Your task to perform on an android device: toggle data saver in the chrome app Image 0: 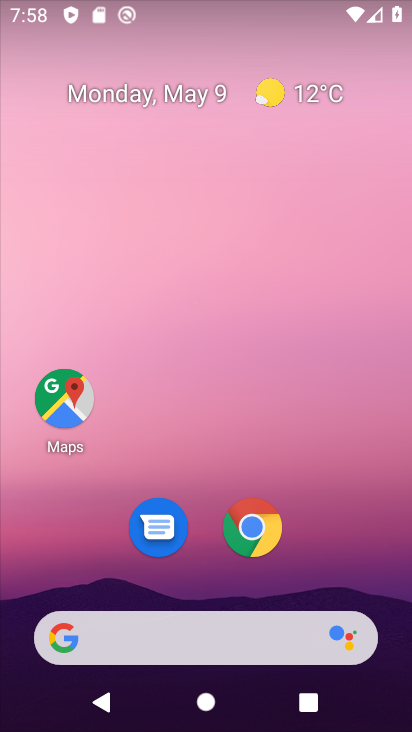
Step 0: click (260, 530)
Your task to perform on an android device: toggle data saver in the chrome app Image 1: 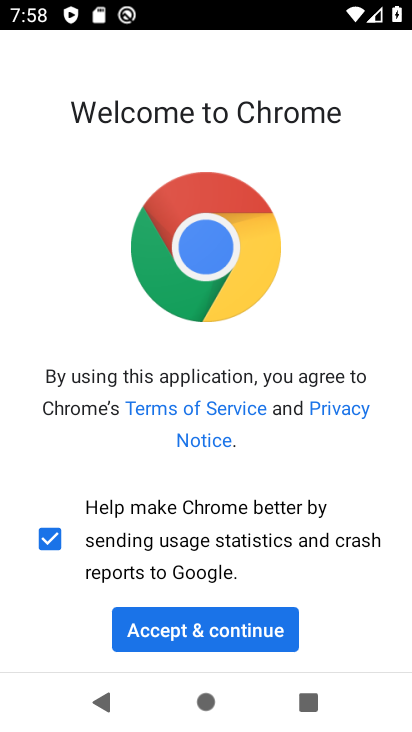
Step 1: click (261, 644)
Your task to perform on an android device: toggle data saver in the chrome app Image 2: 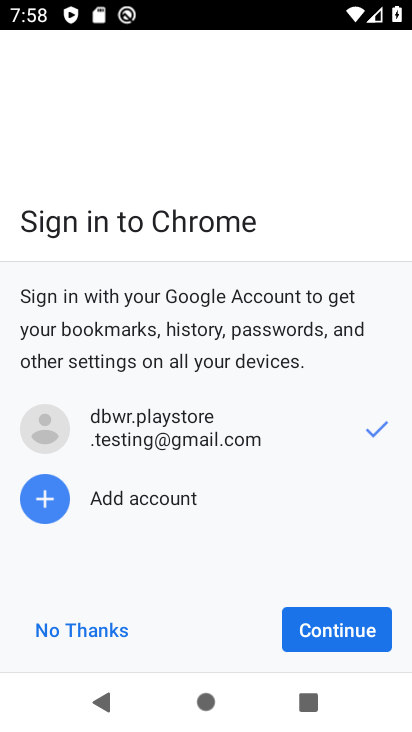
Step 2: click (362, 633)
Your task to perform on an android device: toggle data saver in the chrome app Image 3: 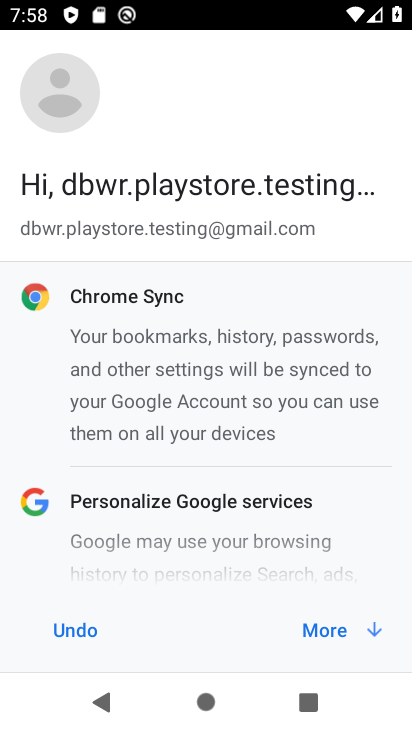
Step 3: click (336, 621)
Your task to perform on an android device: toggle data saver in the chrome app Image 4: 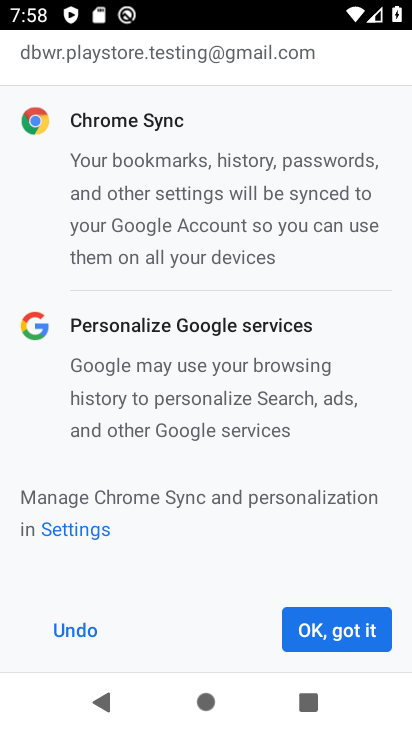
Step 4: click (336, 621)
Your task to perform on an android device: toggle data saver in the chrome app Image 5: 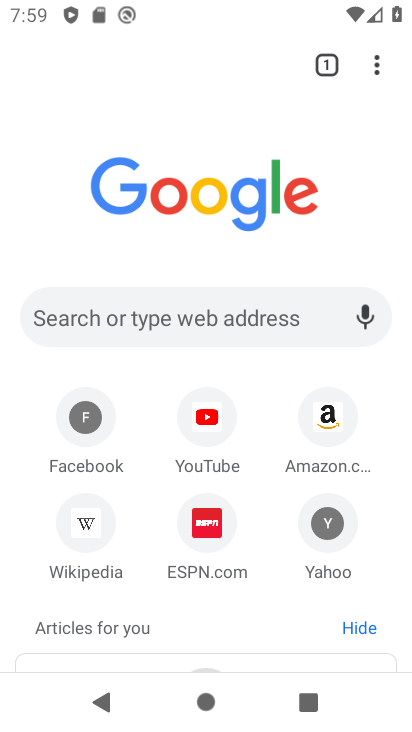
Step 5: click (371, 59)
Your task to perform on an android device: toggle data saver in the chrome app Image 6: 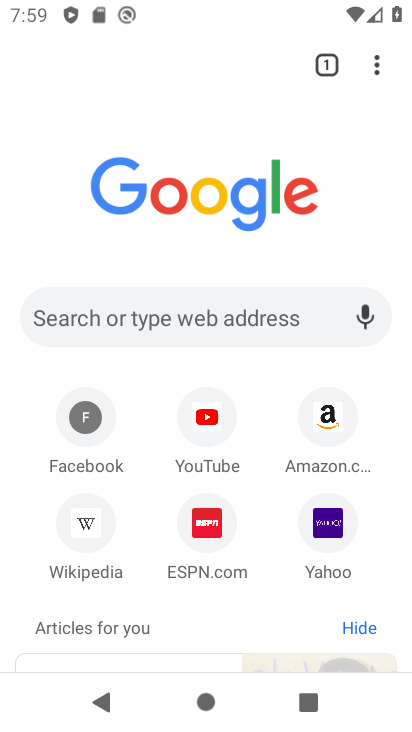
Step 6: click (372, 79)
Your task to perform on an android device: toggle data saver in the chrome app Image 7: 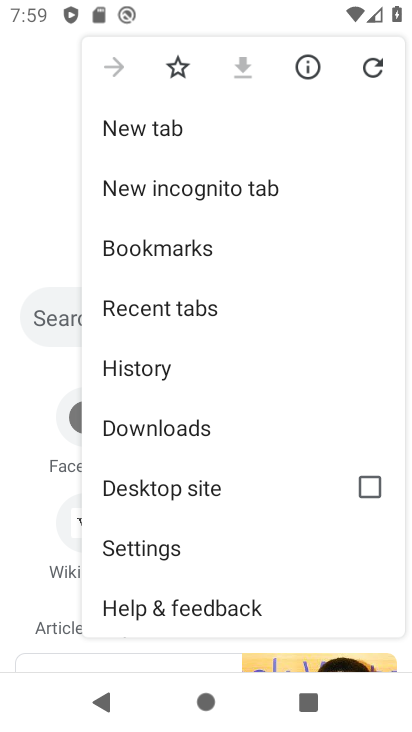
Step 7: drag from (226, 583) to (277, 151)
Your task to perform on an android device: toggle data saver in the chrome app Image 8: 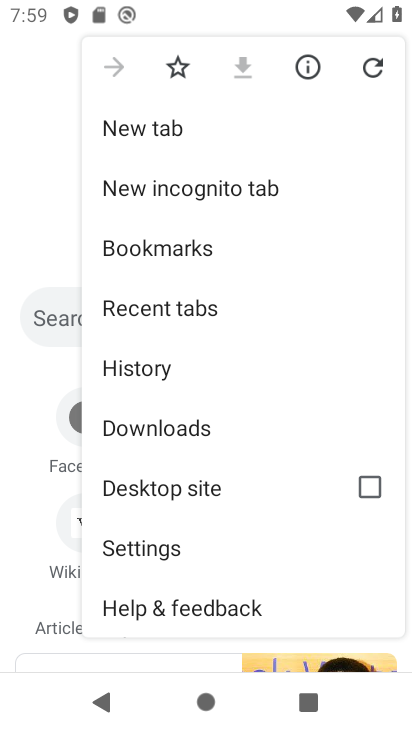
Step 8: click (192, 546)
Your task to perform on an android device: toggle data saver in the chrome app Image 9: 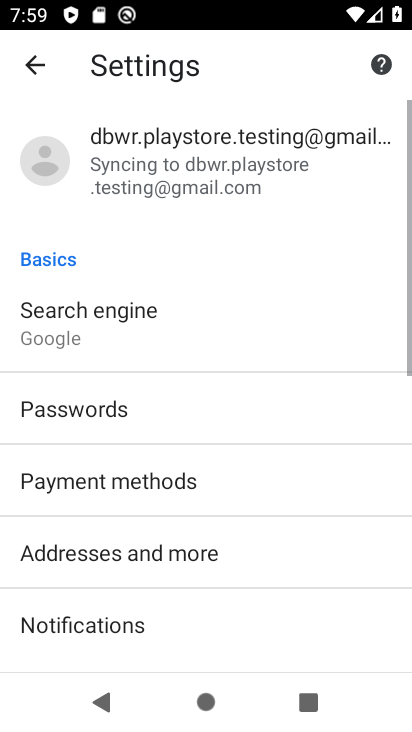
Step 9: drag from (270, 581) to (274, 219)
Your task to perform on an android device: toggle data saver in the chrome app Image 10: 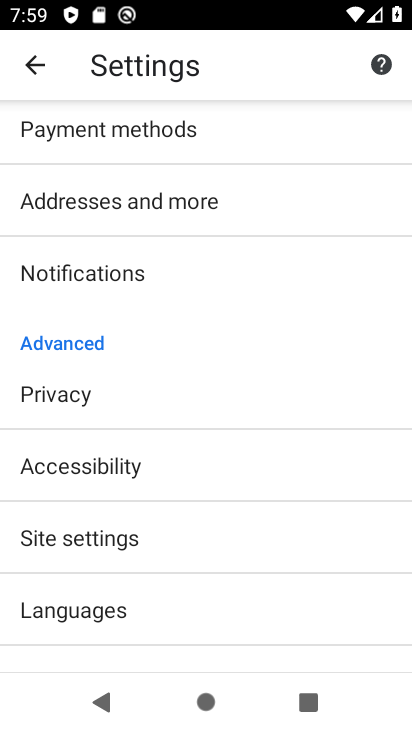
Step 10: drag from (197, 498) to (204, 129)
Your task to perform on an android device: toggle data saver in the chrome app Image 11: 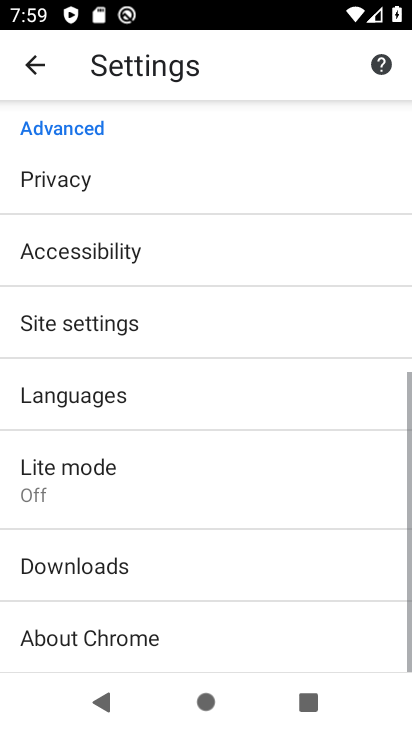
Step 11: drag from (165, 635) to (178, 292)
Your task to perform on an android device: toggle data saver in the chrome app Image 12: 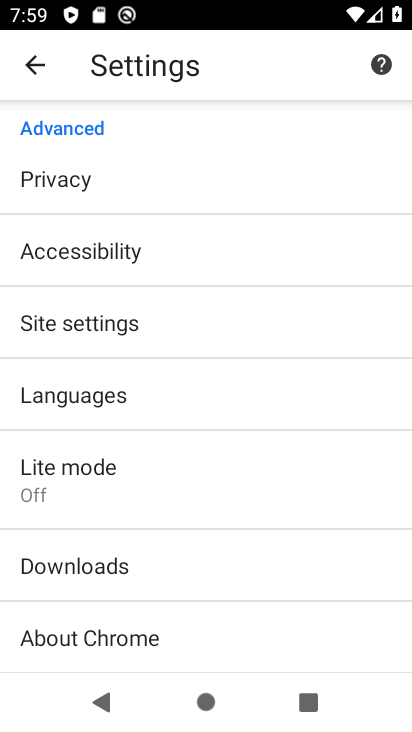
Step 12: click (165, 485)
Your task to perform on an android device: toggle data saver in the chrome app Image 13: 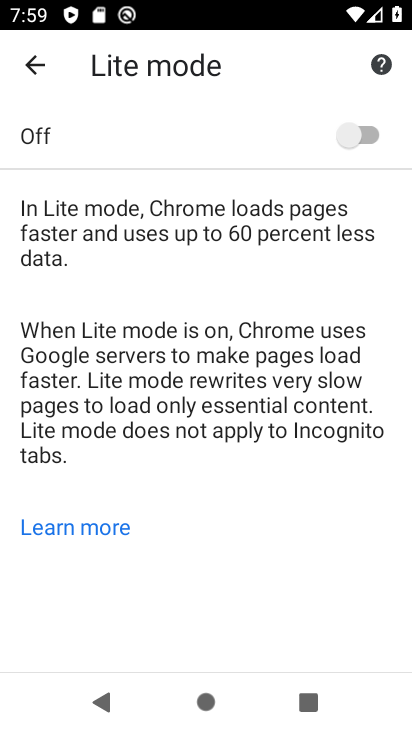
Step 13: click (380, 140)
Your task to perform on an android device: toggle data saver in the chrome app Image 14: 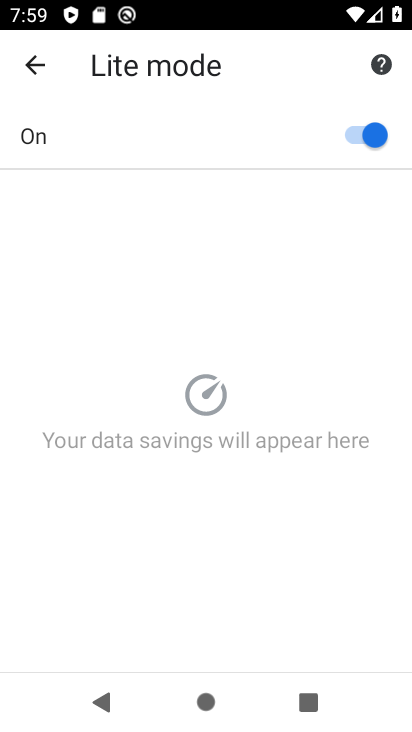
Step 14: task complete